Your task to perform on an android device: move an email to a new category in the gmail app Image 0: 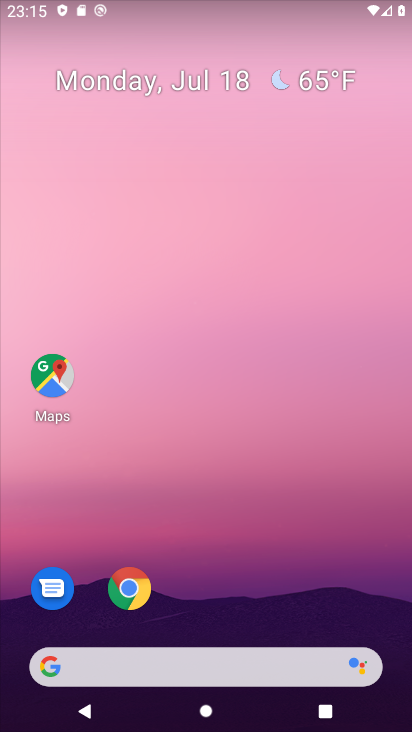
Step 0: press home button
Your task to perform on an android device: move an email to a new category in the gmail app Image 1: 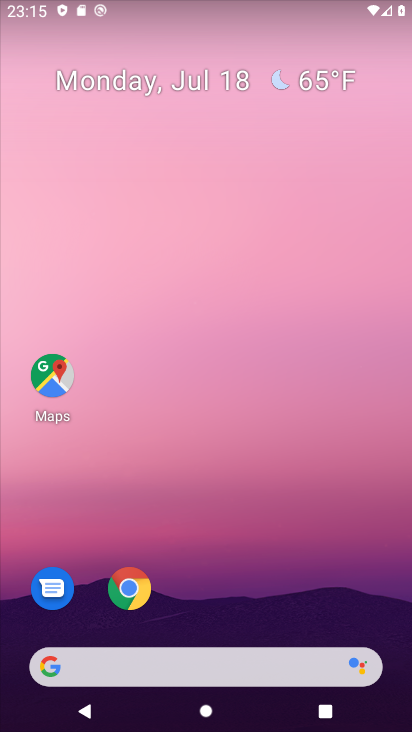
Step 1: drag from (330, 540) to (341, 4)
Your task to perform on an android device: move an email to a new category in the gmail app Image 2: 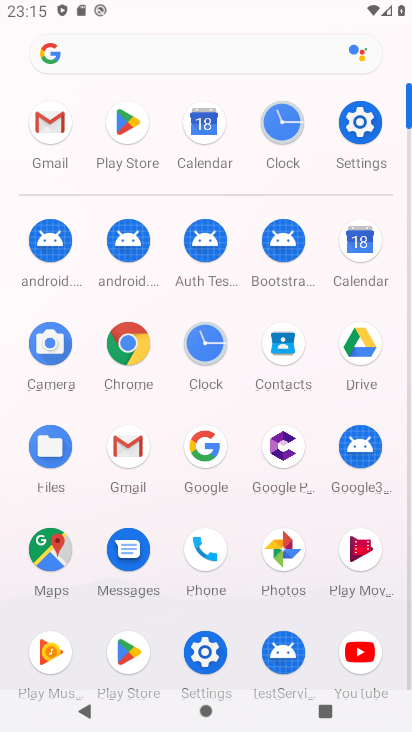
Step 2: click (52, 118)
Your task to perform on an android device: move an email to a new category in the gmail app Image 3: 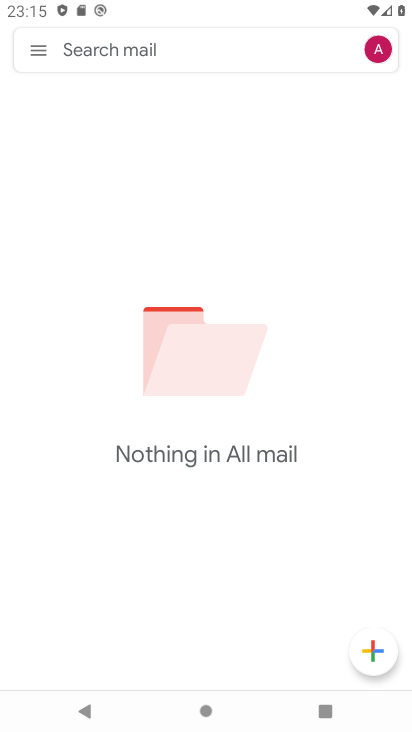
Step 3: click (38, 53)
Your task to perform on an android device: move an email to a new category in the gmail app Image 4: 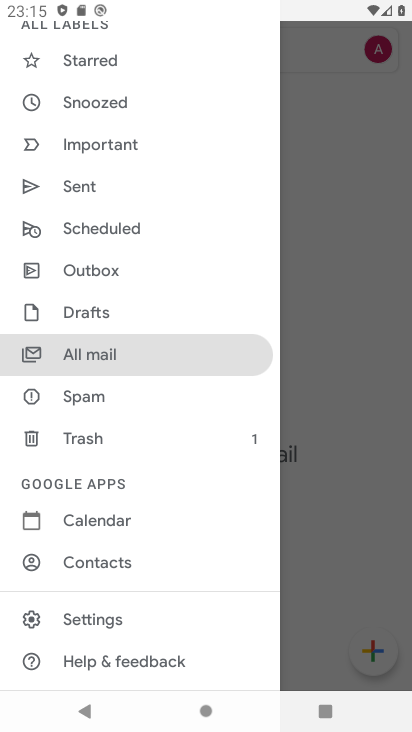
Step 4: click (102, 357)
Your task to perform on an android device: move an email to a new category in the gmail app Image 5: 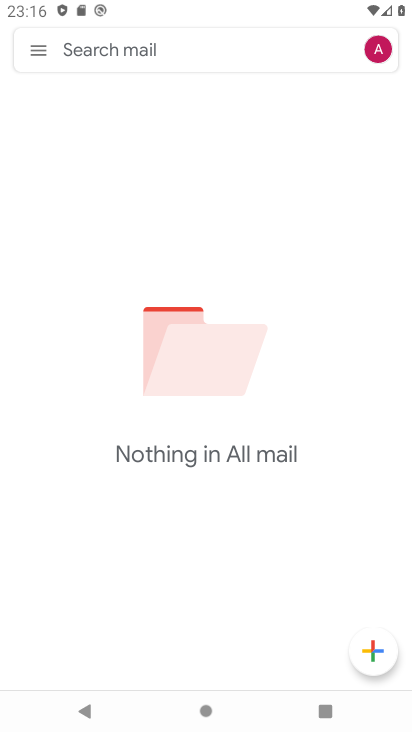
Step 5: task complete